Your task to perform on an android device: Open the calendar and show me this week's events? Image 0: 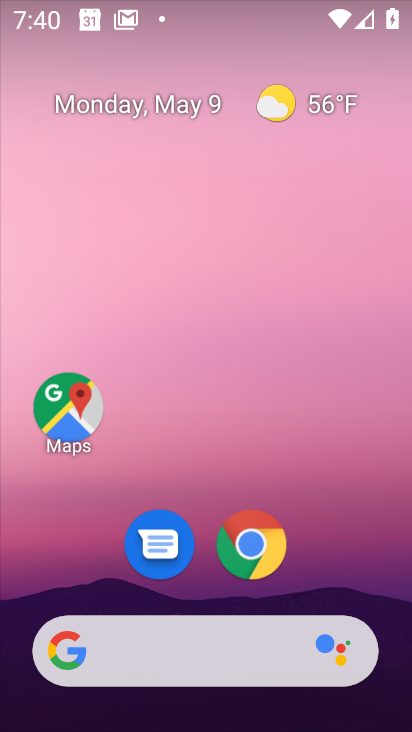
Step 0: drag from (323, 539) to (246, 24)
Your task to perform on an android device: Open the calendar and show me this week's events? Image 1: 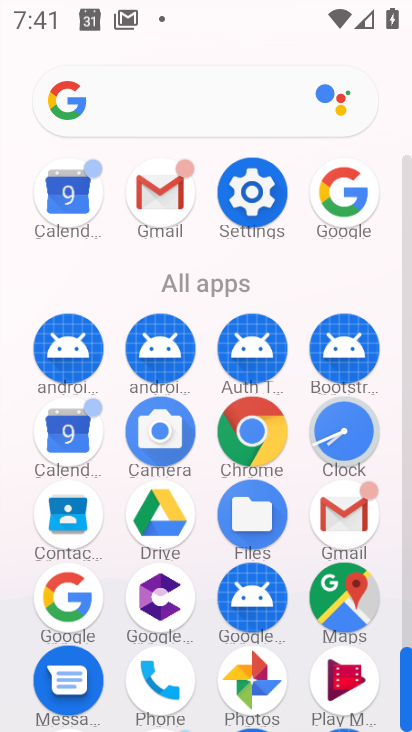
Step 1: click (72, 189)
Your task to perform on an android device: Open the calendar and show me this week's events? Image 2: 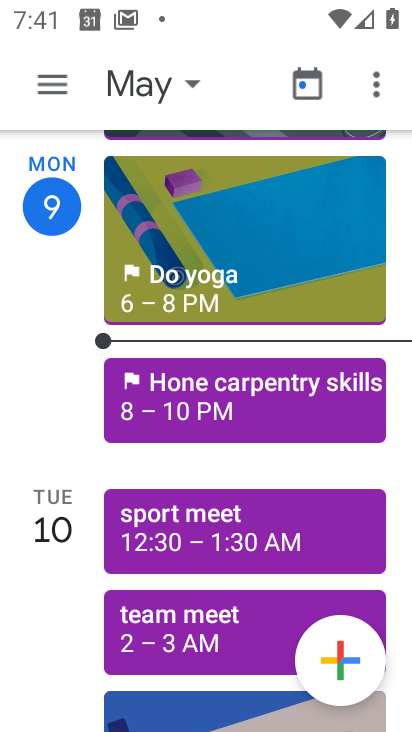
Step 2: click (186, 85)
Your task to perform on an android device: Open the calendar and show me this week's events? Image 3: 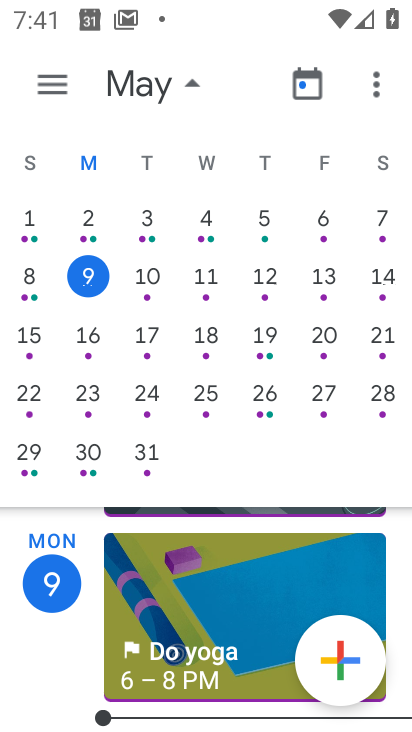
Step 3: click (65, 83)
Your task to perform on an android device: Open the calendar and show me this week's events? Image 4: 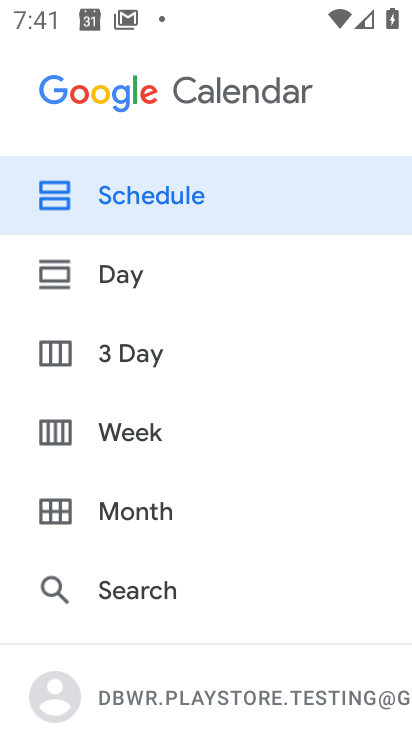
Step 4: click (126, 209)
Your task to perform on an android device: Open the calendar and show me this week's events? Image 5: 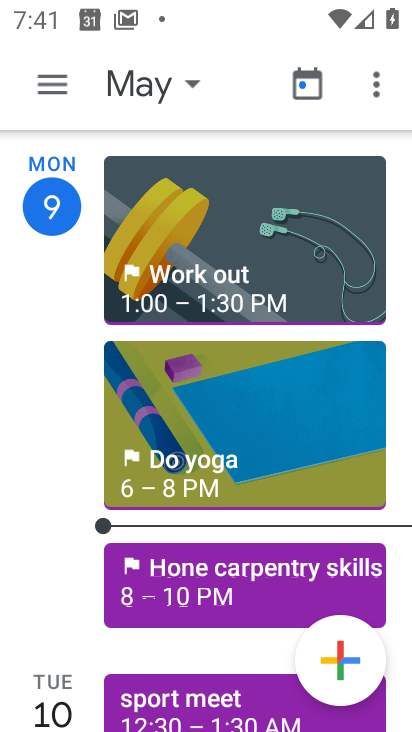
Step 5: task complete